Your task to perform on an android device: set an alarm Image 0: 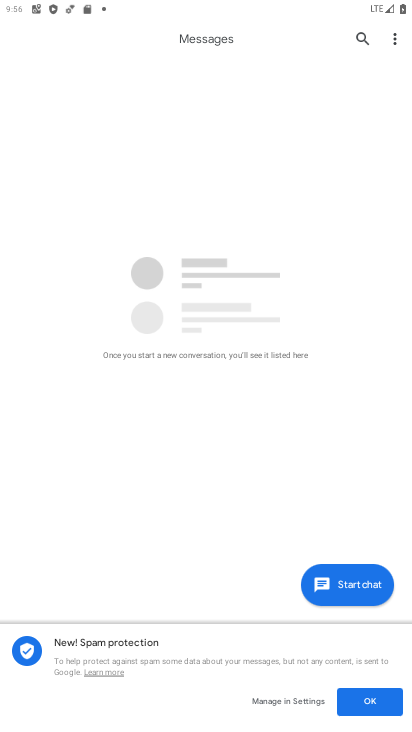
Step 0: drag from (227, 537) to (295, 162)
Your task to perform on an android device: set an alarm Image 1: 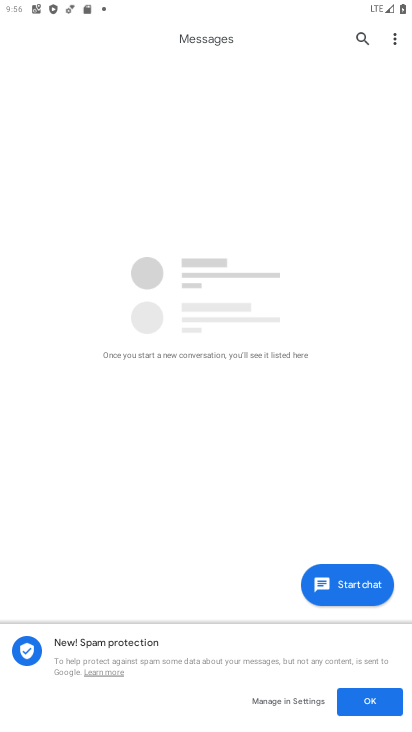
Step 1: click (231, 322)
Your task to perform on an android device: set an alarm Image 2: 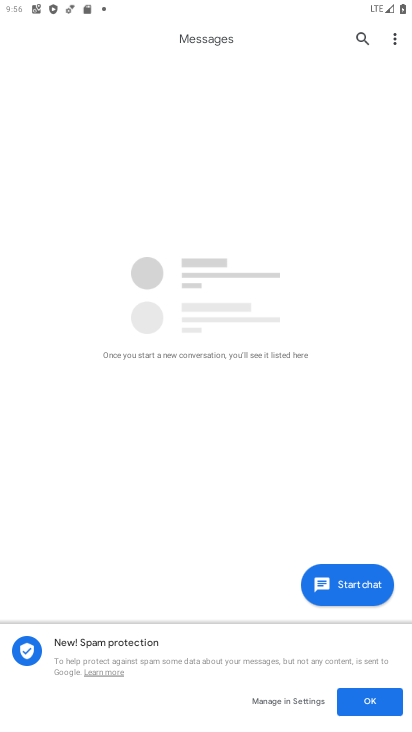
Step 2: drag from (247, 536) to (283, 458)
Your task to perform on an android device: set an alarm Image 3: 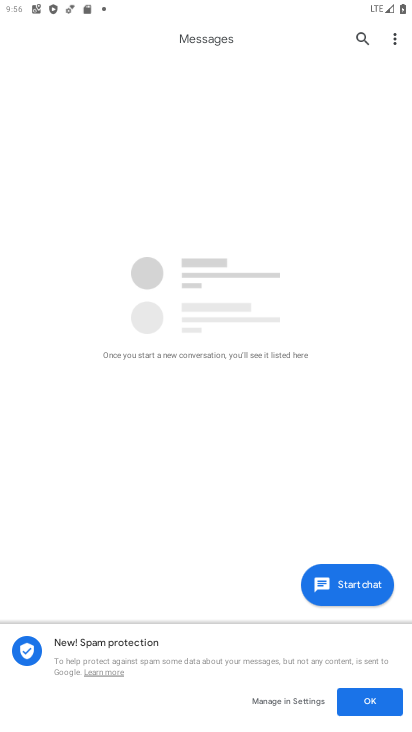
Step 3: press home button
Your task to perform on an android device: set an alarm Image 4: 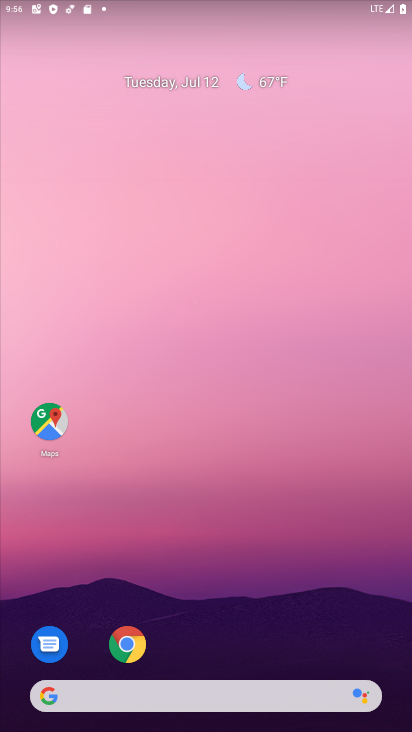
Step 4: drag from (238, 599) to (325, 0)
Your task to perform on an android device: set an alarm Image 5: 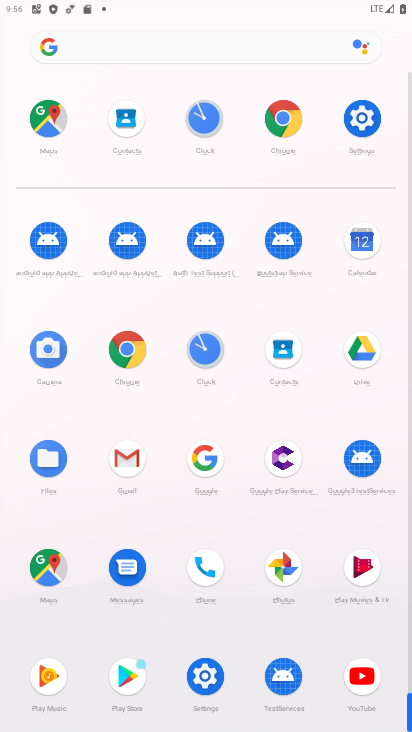
Step 5: click (198, 357)
Your task to perform on an android device: set an alarm Image 6: 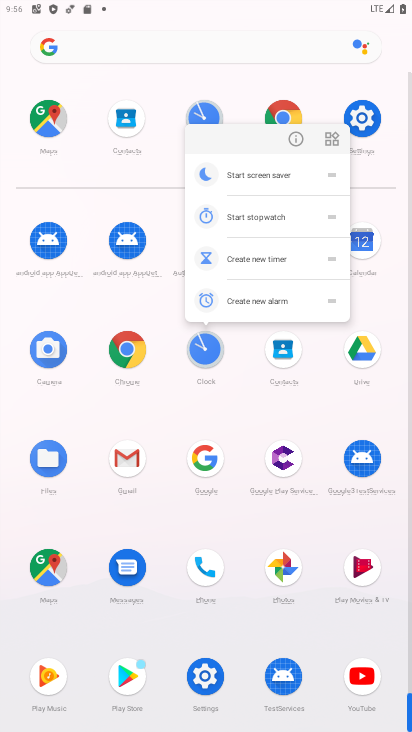
Step 6: click (198, 357)
Your task to perform on an android device: set an alarm Image 7: 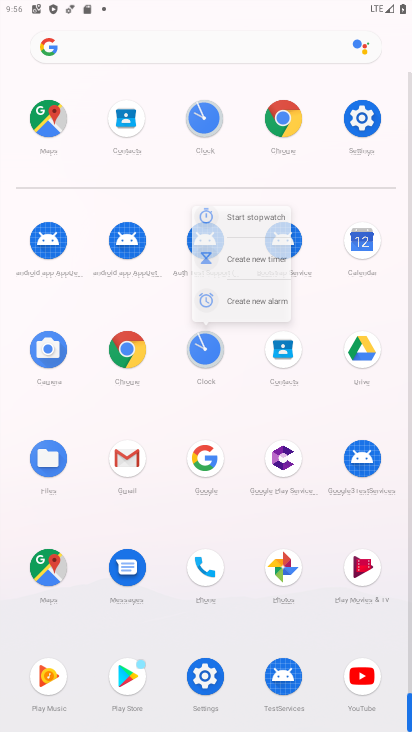
Step 7: click (198, 357)
Your task to perform on an android device: set an alarm Image 8: 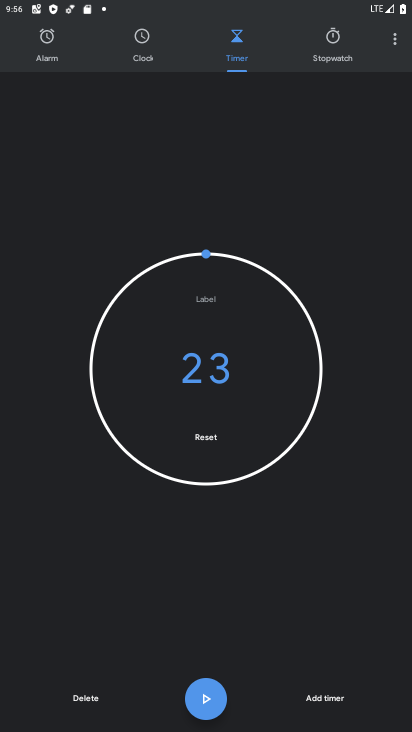
Step 8: click (62, 54)
Your task to perform on an android device: set an alarm Image 9: 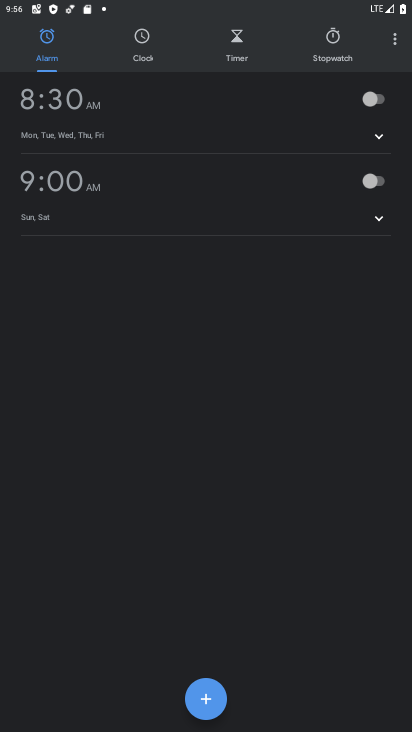
Step 9: click (372, 103)
Your task to perform on an android device: set an alarm Image 10: 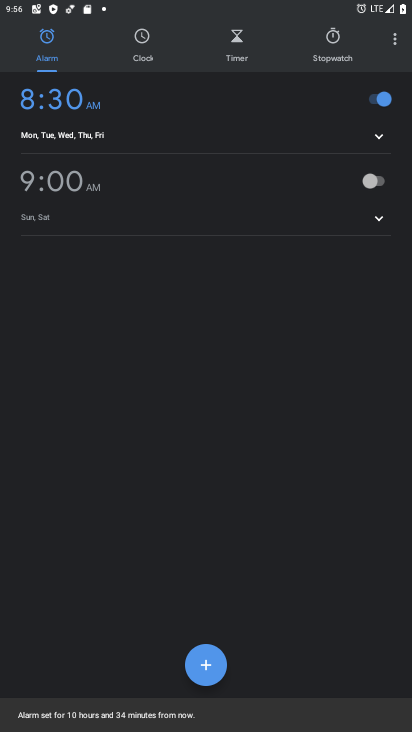
Step 10: task complete